Your task to perform on an android device: Show me popular games on the Play Store Image 0: 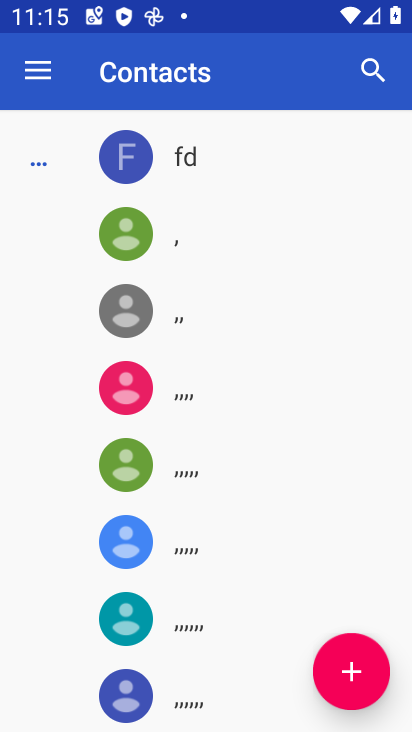
Step 0: press home button
Your task to perform on an android device: Show me popular games on the Play Store Image 1: 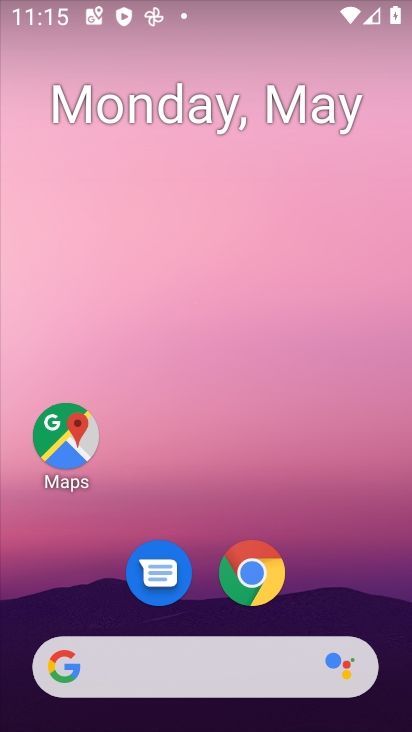
Step 1: drag from (318, 560) to (286, 115)
Your task to perform on an android device: Show me popular games on the Play Store Image 2: 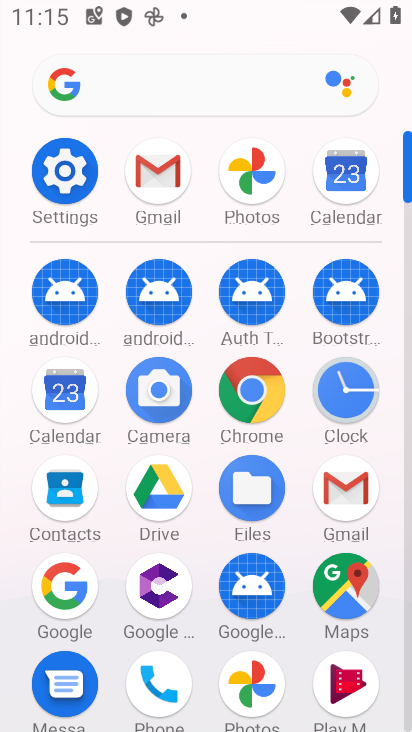
Step 2: click (403, 723)
Your task to perform on an android device: Show me popular games on the Play Store Image 3: 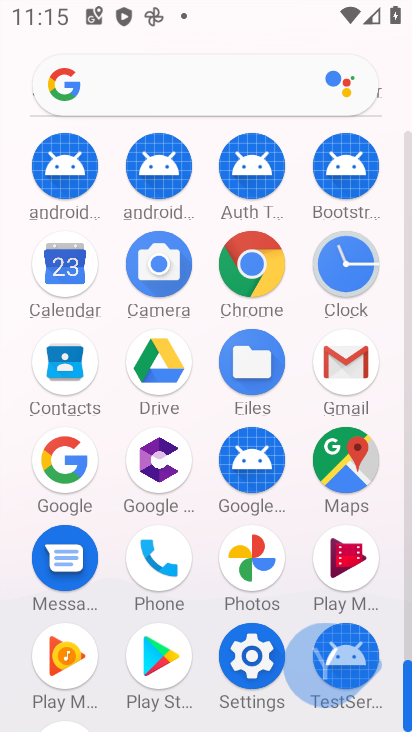
Step 3: click (403, 723)
Your task to perform on an android device: Show me popular games on the Play Store Image 4: 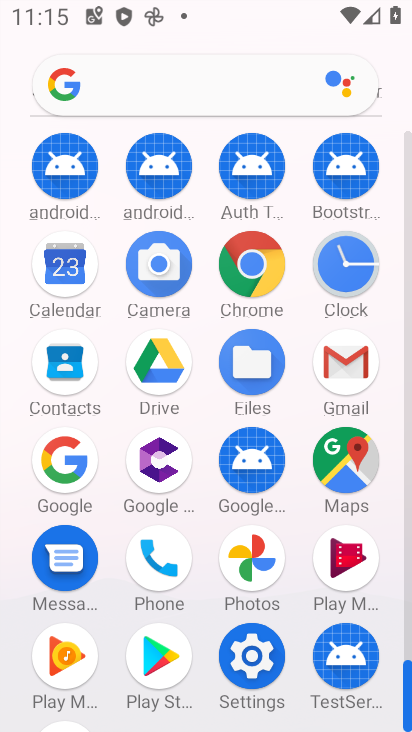
Step 4: click (164, 688)
Your task to perform on an android device: Show me popular games on the Play Store Image 5: 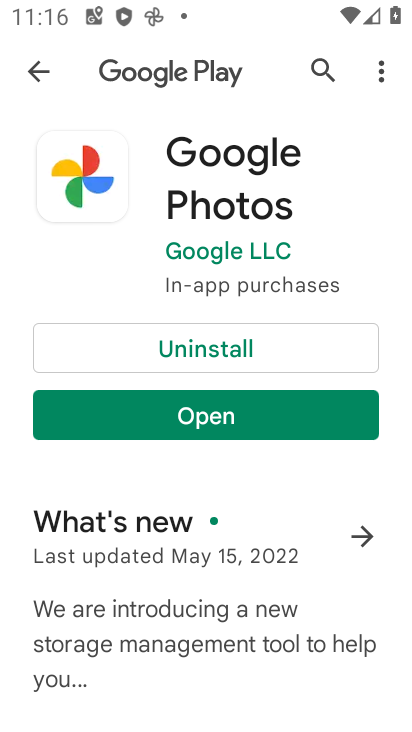
Step 5: click (45, 61)
Your task to perform on an android device: Show me popular games on the Play Store Image 6: 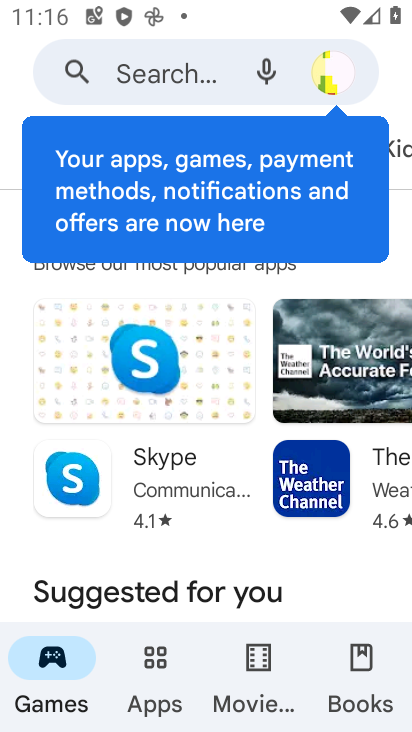
Step 6: click (144, 686)
Your task to perform on an android device: Show me popular games on the Play Store Image 7: 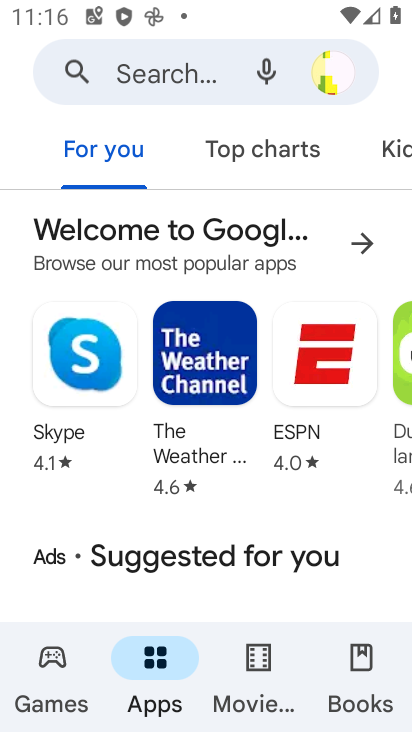
Step 7: click (76, 681)
Your task to perform on an android device: Show me popular games on the Play Store Image 8: 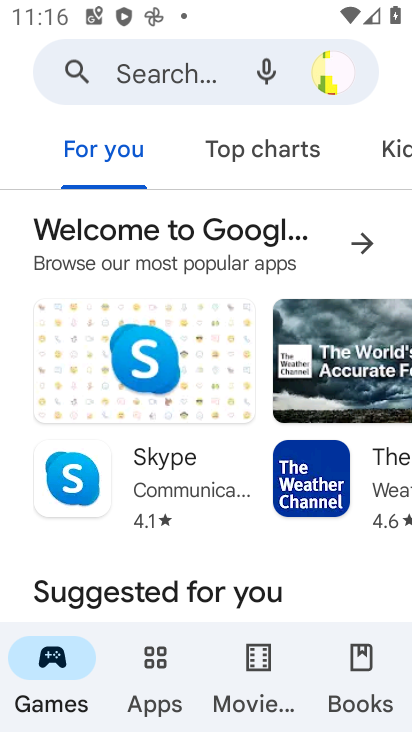
Step 8: click (233, 140)
Your task to perform on an android device: Show me popular games on the Play Store Image 9: 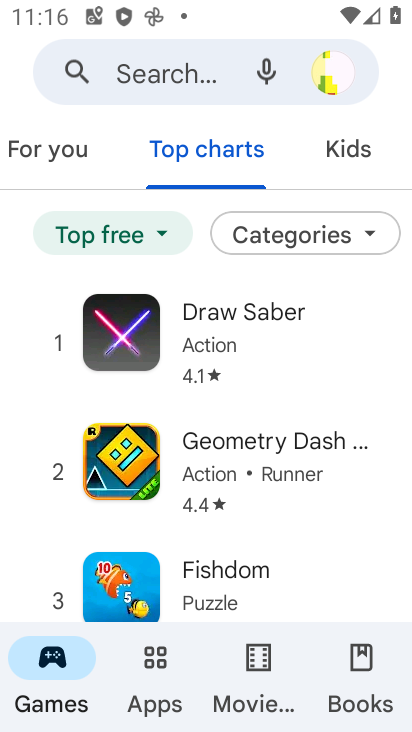
Step 9: task complete